Your task to perform on an android device: check data usage Image 0: 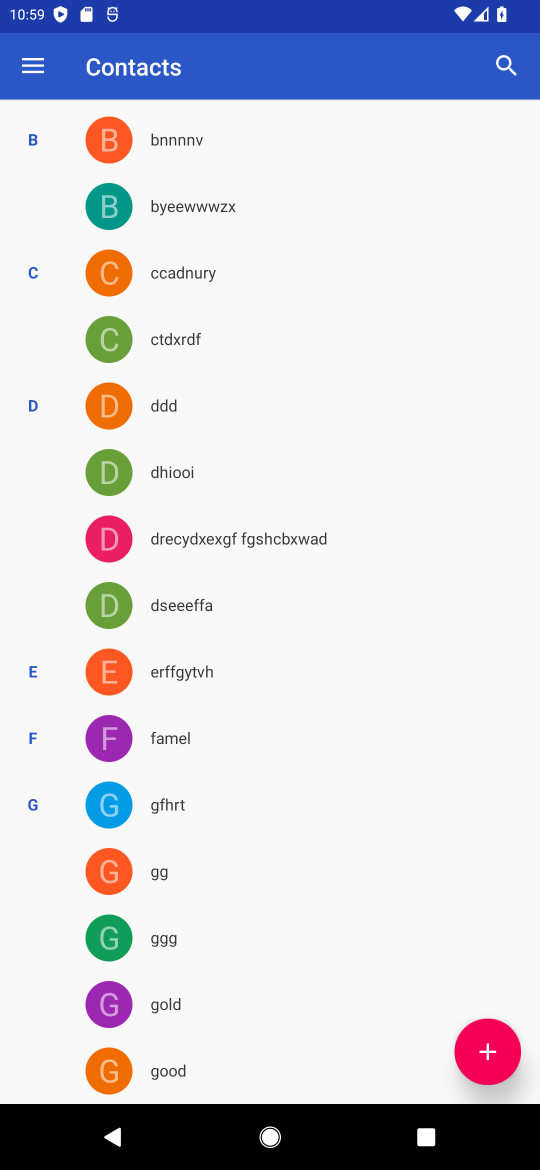
Step 0: drag from (414, 13) to (507, 607)
Your task to perform on an android device: check data usage Image 1: 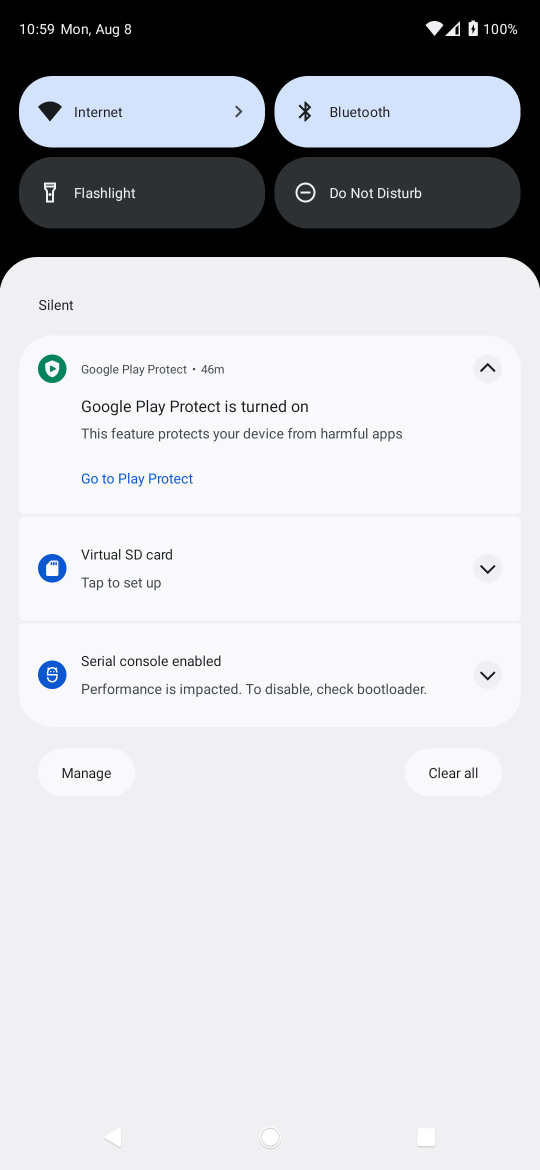
Step 1: click (249, 107)
Your task to perform on an android device: check data usage Image 2: 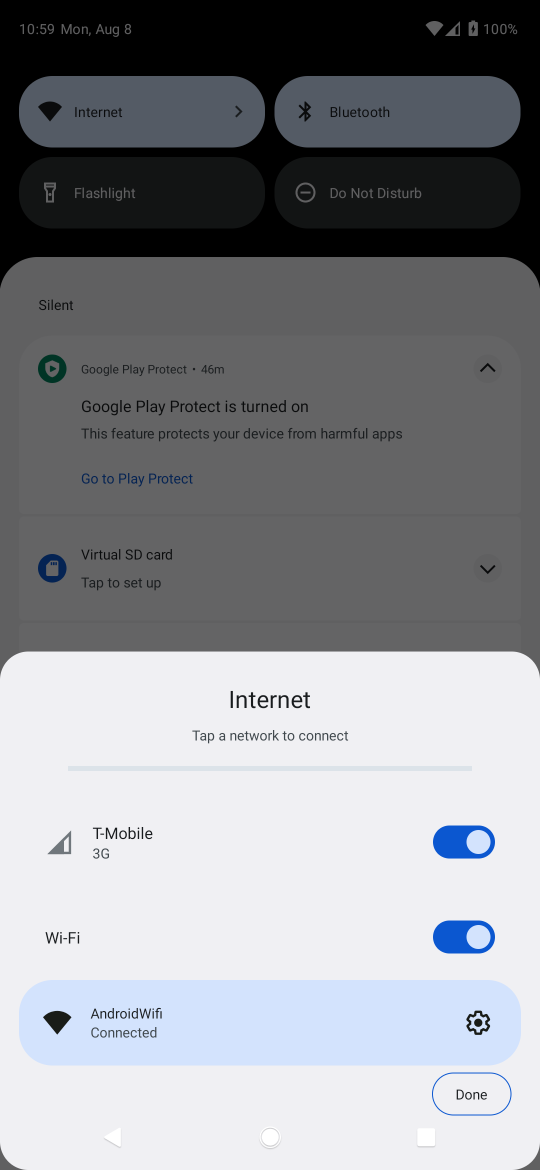
Step 2: click (486, 1025)
Your task to perform on an android device: check data usage Image 3: 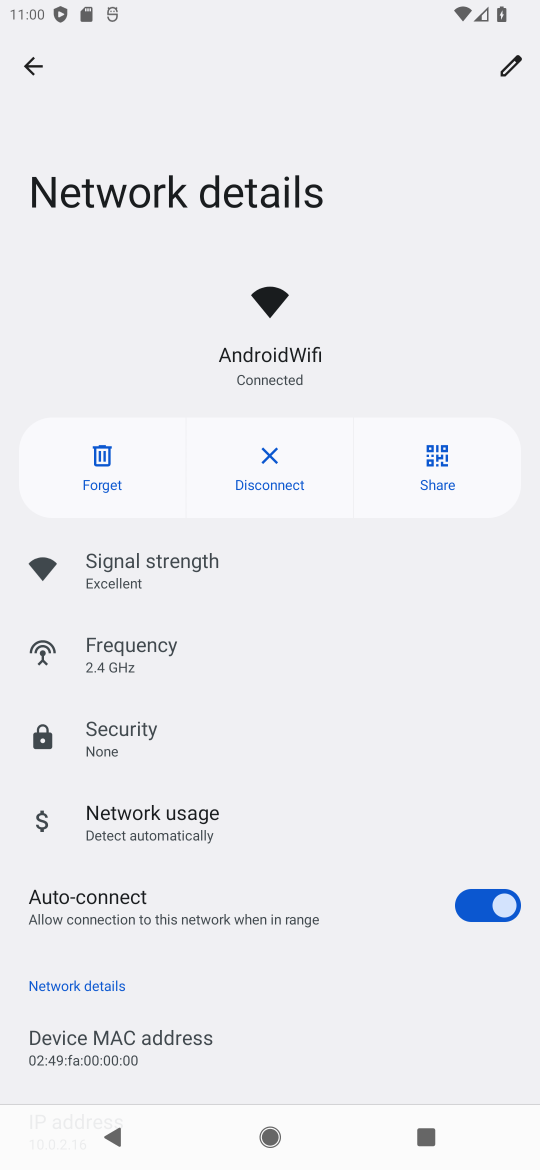
Step 3: click (14, 52)
Your task to perform on an android device: check data usage Image 4: 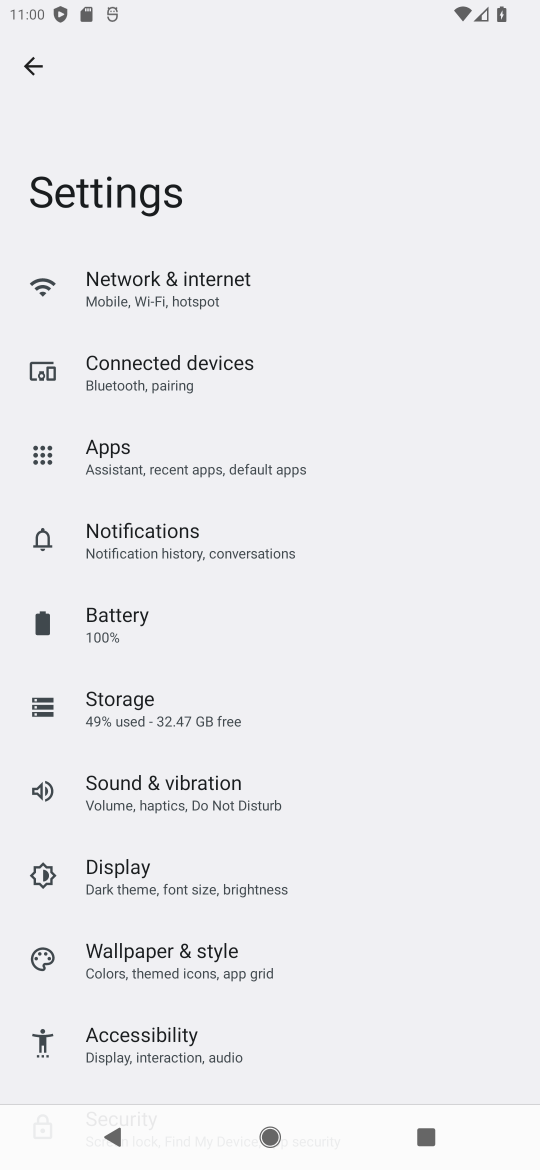
Step 4: click (165, 272)
Your task to perform on an android device: check data usage Image 5: 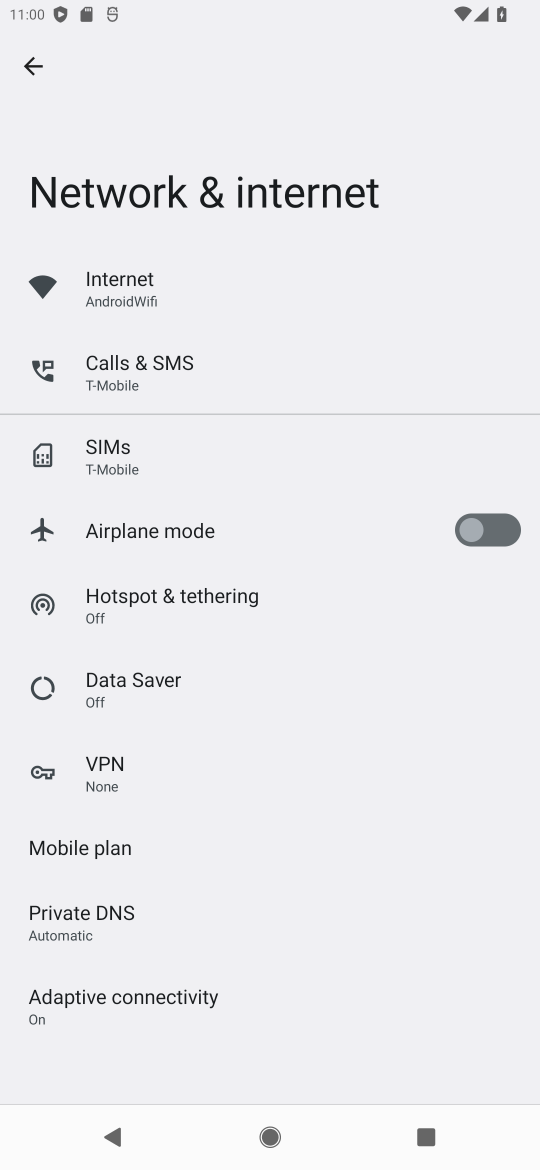
Step 5: click (151, 292)
Your task to perform on an android device: check data usage Image 6: 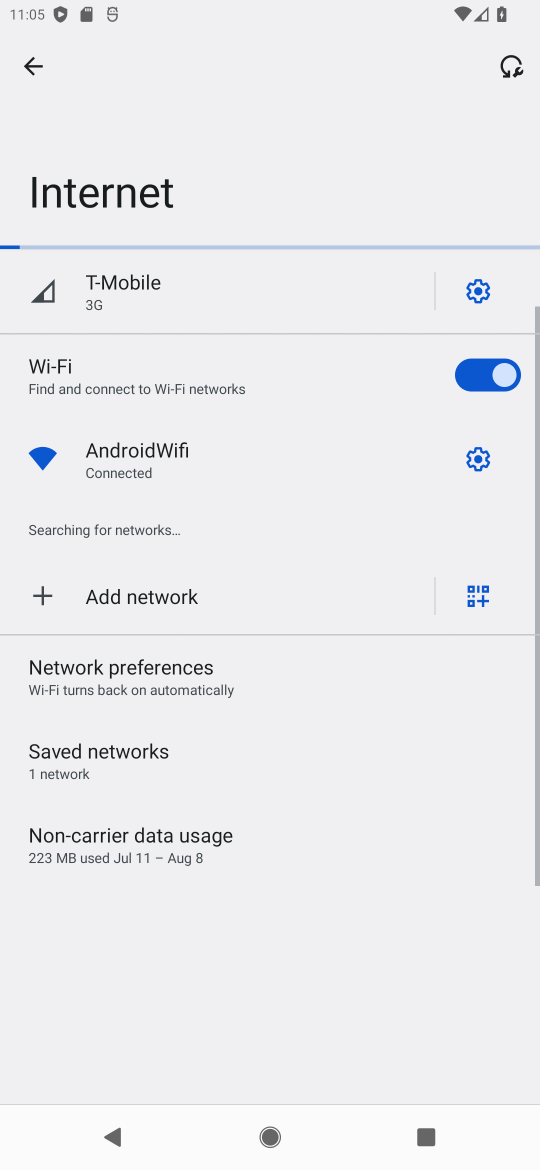
Step 6: task complete